Your task to perform on an android device: Do I have any events tomorrow? Image 0: 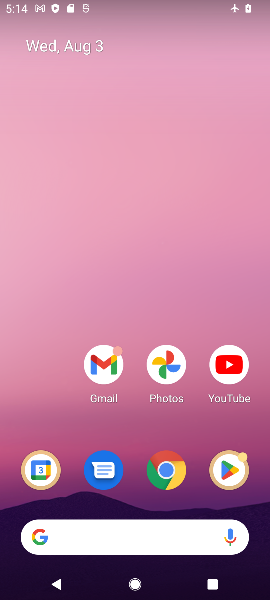
Step 0: drag from (133, 423) to (132, 65)
Your task to perform on an android device: Do I have any events tomorrow? Image 1: 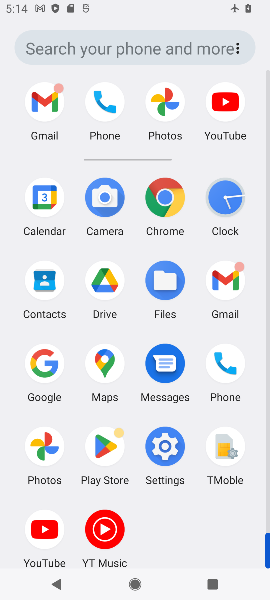
Step 1: click (37, 190)
Your task to perform on an android device: Do I have any events tomorrow? Image 2: 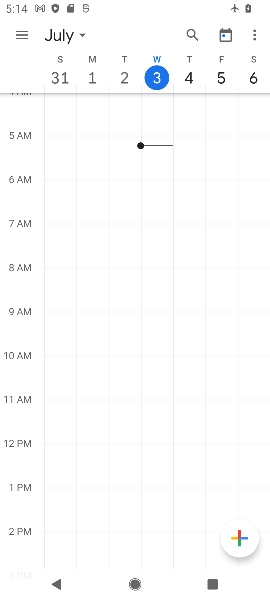
Step 2: click (183, 65)
Your task to perform on an android device: Do I have any events tomorrow? Image 3: 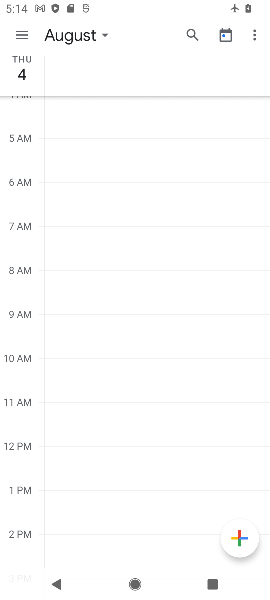
Step 3: task complete